Your task to perform on an android device: search for starred emails in the gmail app Image 0: 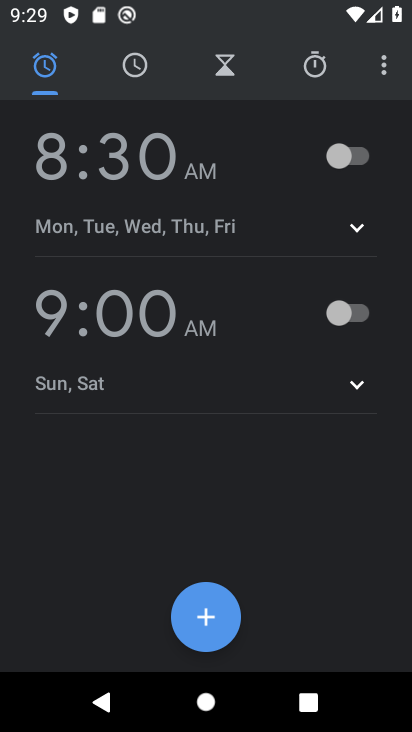
Step 0: press back button
Your task to perform on an android device: search for starred emails in the gmail app Image 1: 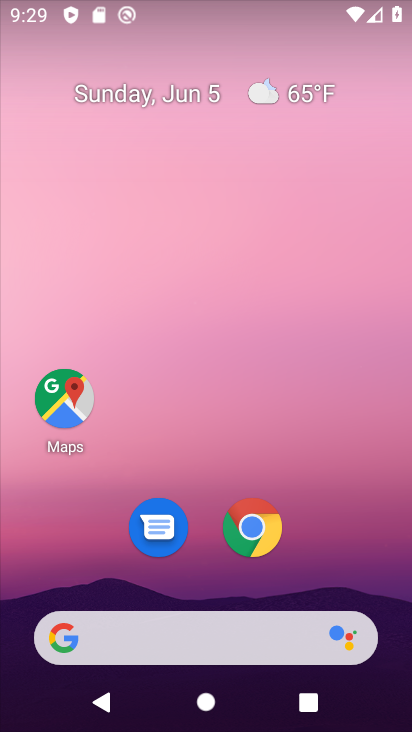
Step 1: drag from (257, 458) to (324, 13)
Your task to perform on an android device: search for starred emails in the gmail app Image 2: 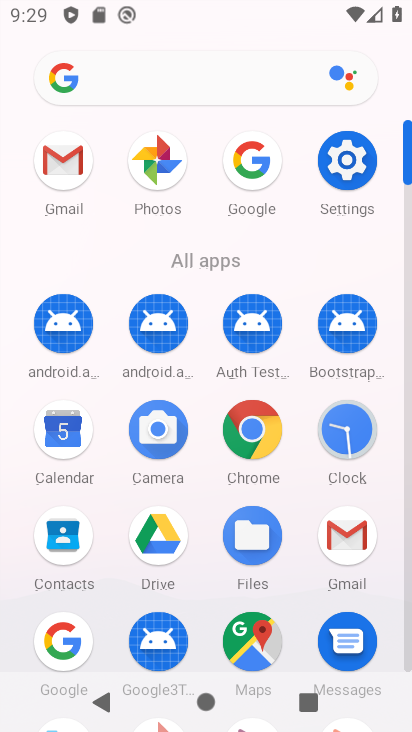
Step 2: click (47, 164)
Your task to perform on an android device: search for starred emails in the gmail app Image 3: 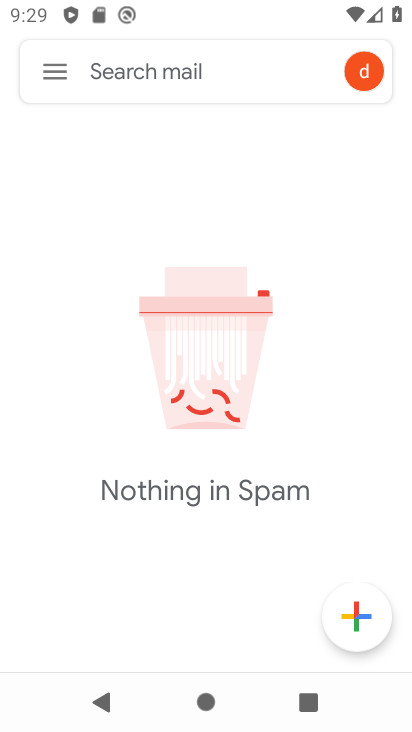
Step 3: click (48, 69)
Your task to perform on an android device: search for starred emails in the gmail app Image 4: 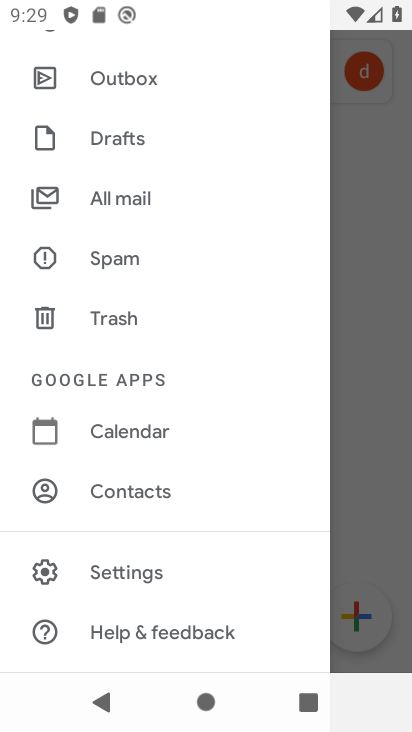
Step 4: drag from (192, 107) to (223, 593)
Your task to perform on an android device: search for starred emails in the gmail app Image 5: 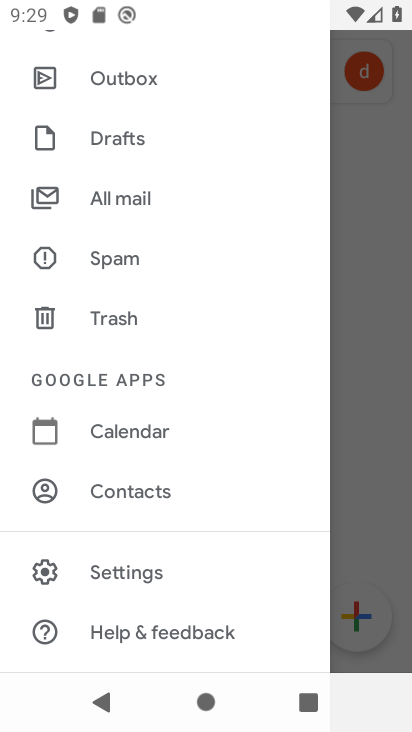
Step 5: drag from (173, 106) to (172, 553)
Your task to perform on an android device: search for starred emails in the gmail app Image 6: 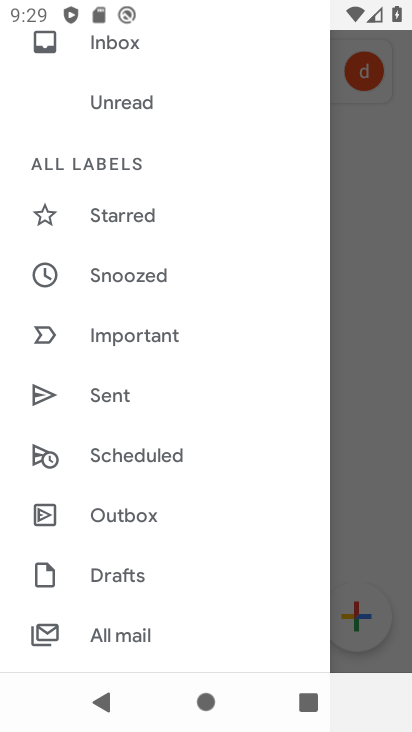
Step 6: click (139, 210)
Your task to perform on an android device: search for starred emails in the gmail app Image 7: 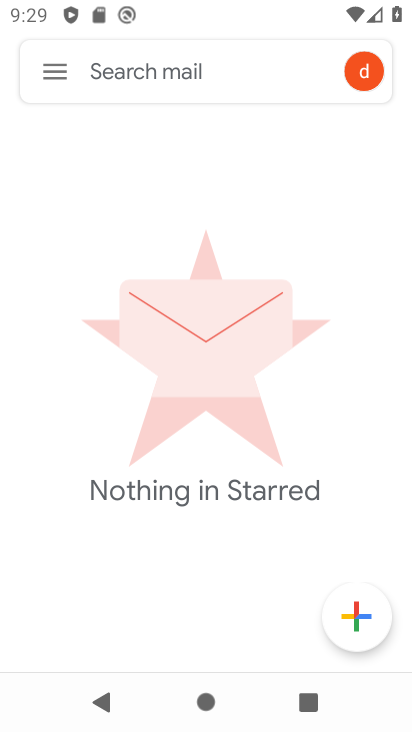
Step 7: task complete